Your task to perform on an android device: When is my next meeting? Image 0: 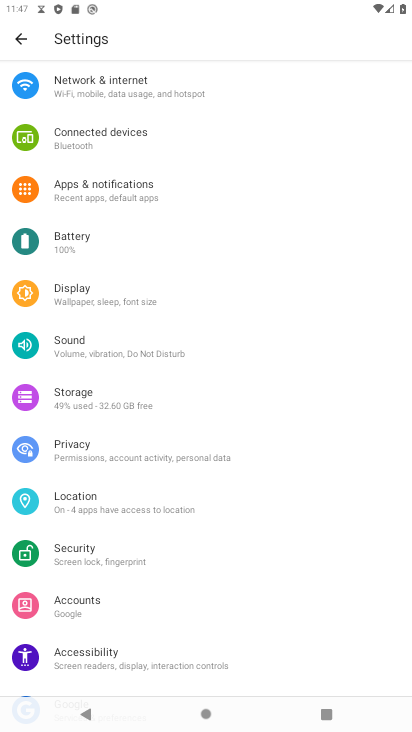
Step 0: press home button
Your task to perform on an android device: When is my next meeting? Image 1: 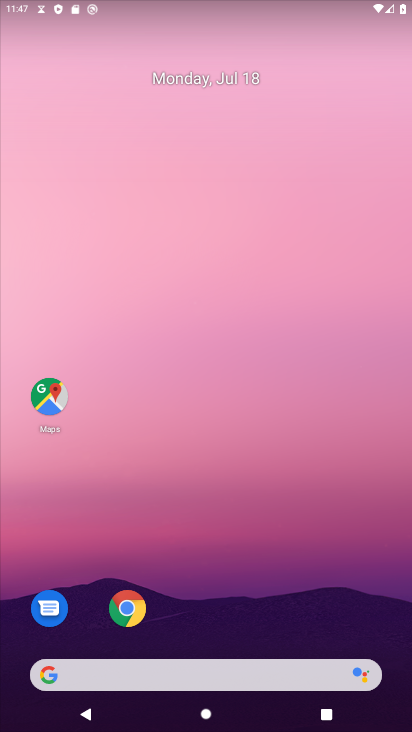
Step 1: drag from (157, 689) to (274, 0)
Your task to perform on an android device: When is my next meeting? Image 2: 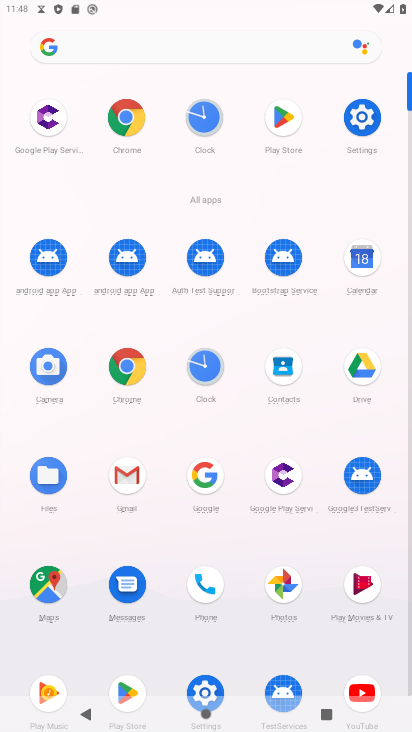
Step 2: click (353, 254)
Your task to perform on an android device: When is my next meeting? Image 3: 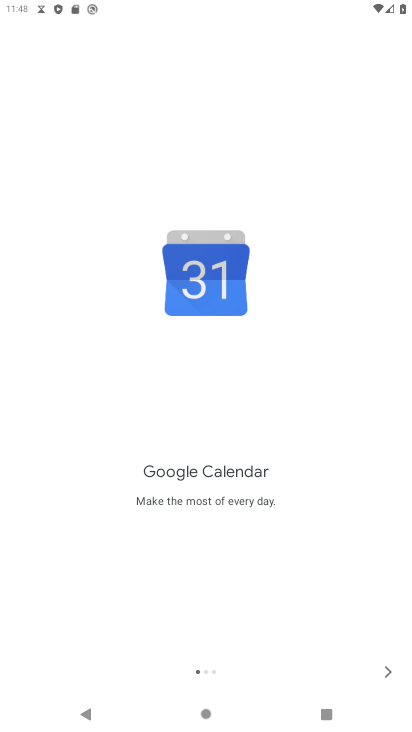
Step 3: click (378, 659)
Your task to perform on an android device: When is my next meeting? Image 4: 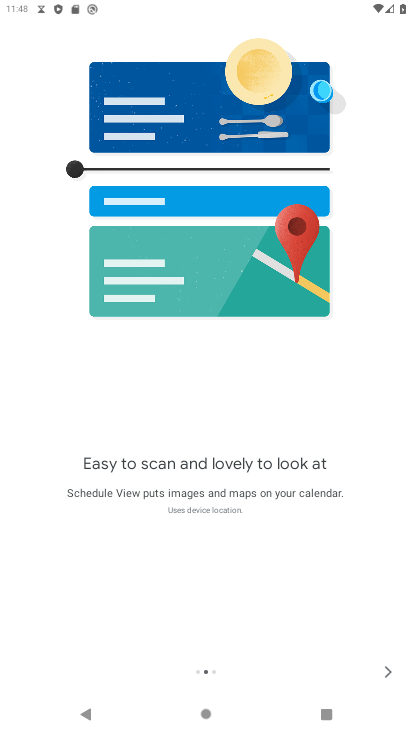
Step 4: click (391, 672)
Your task to perform on an android device: When is my next meeting? Image 5: 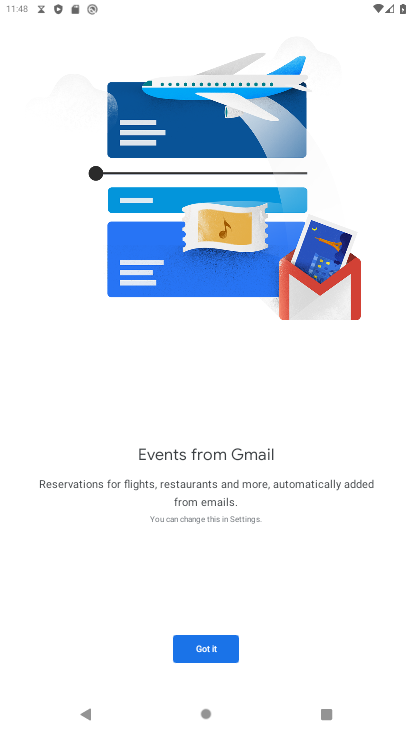
Step 5: click (214, 657)
Your task to perform on an android device: When is my next meeting? Image 6: 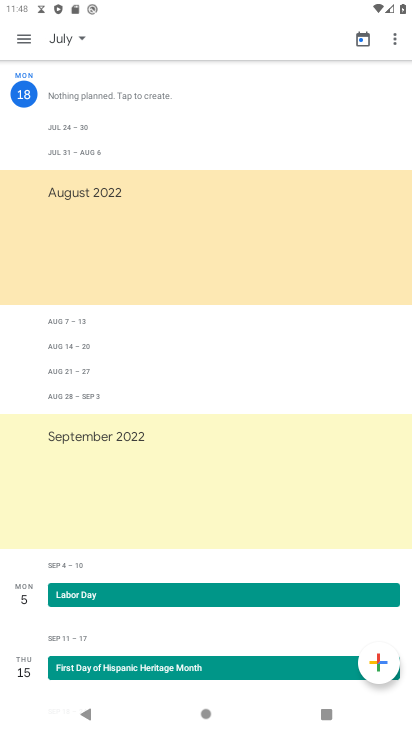
Step 6: click (82, 35)
Your task to perform on an android device: When is my next meeting? Image 7: 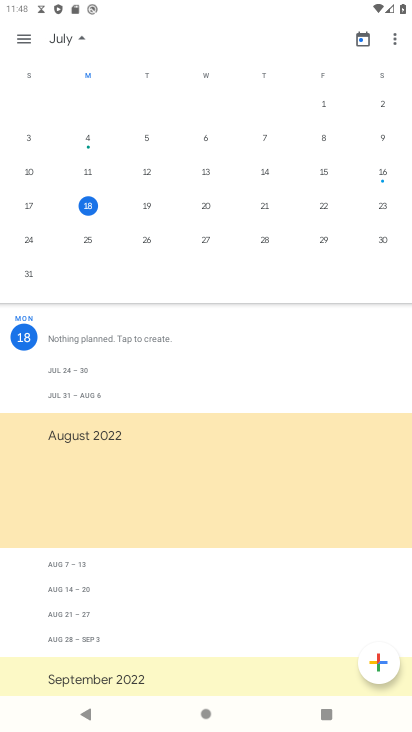
Step 7: click (145, 205)
Your task to perform on an android device: When is my next meeting? Image 8: 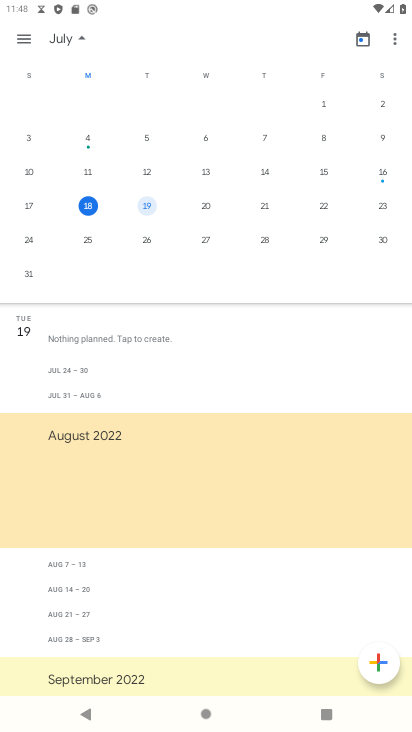
Step 8: click (216, 208)
Your task to perform on an android device: When is my next meeting? Image 9: 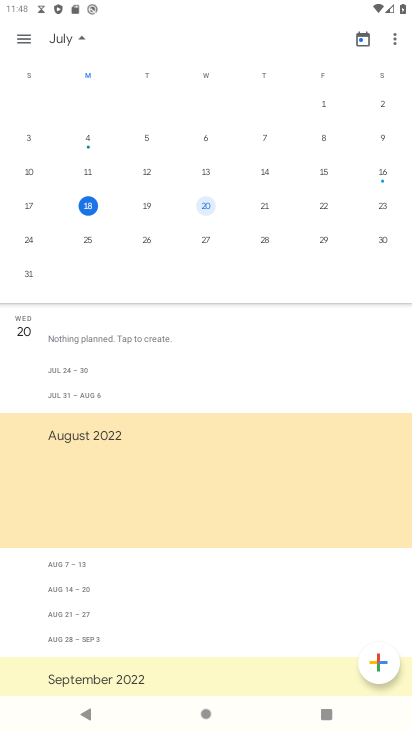
Step 9: task complete